Your task to perform on an android device: Go to Yahoo.com Image 0: 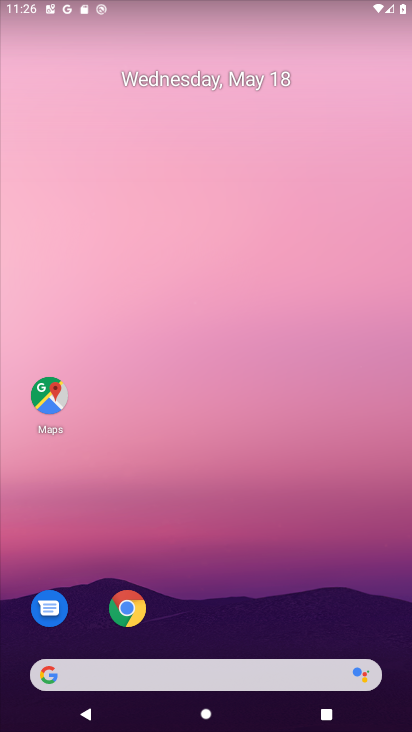
Step 0: click (129, 605)
Your task to perform on an android device: Go to Yahoo.com Image 1: 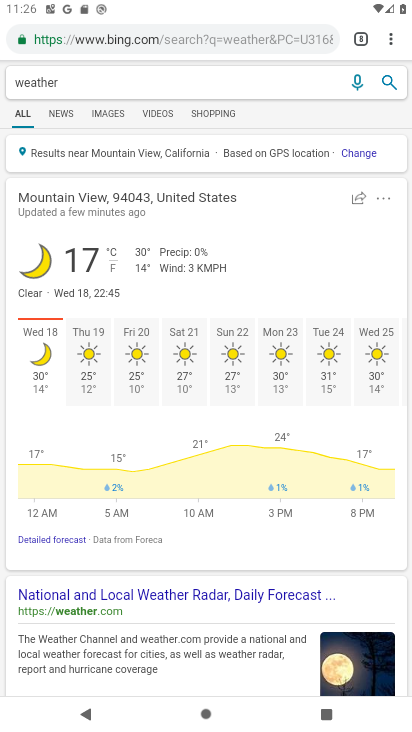
Step 1: click (360, 40)
Your task to perform on an android device: Go to Yahoo.com Image 2: 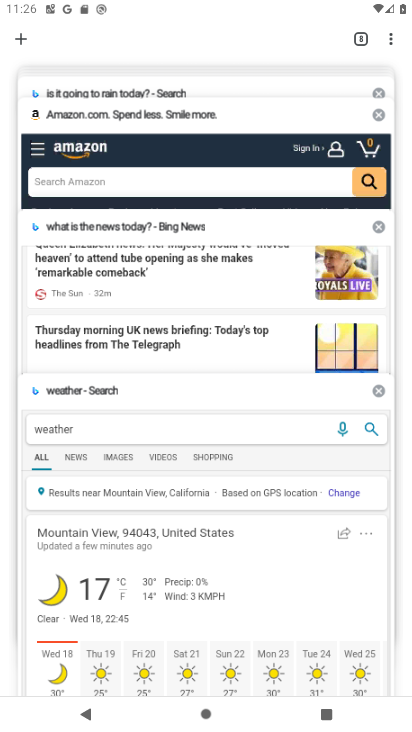
Step 2: drag from (169, 151) to (110, 582)
Your task to perform on an android device: Go to Yahoo.com Image 3: 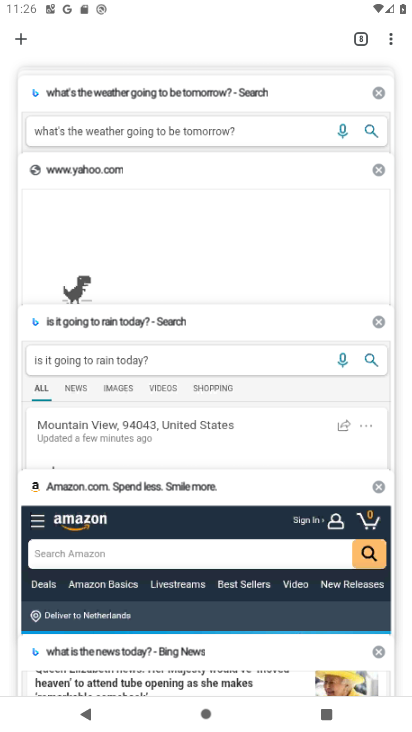
Step 3: click (112, 234)
Your task to perform on an android device: Go to Yahoo.com Image 4: 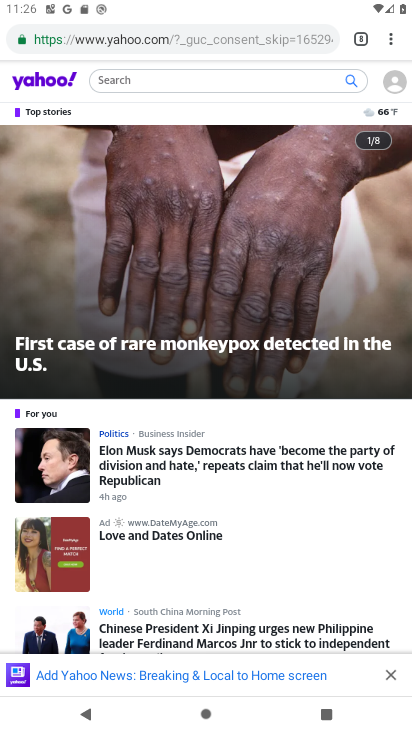
Step 4: task complete